Your task to perform on an android device: Open Google Chrome and open the bookmarks view Image 0: 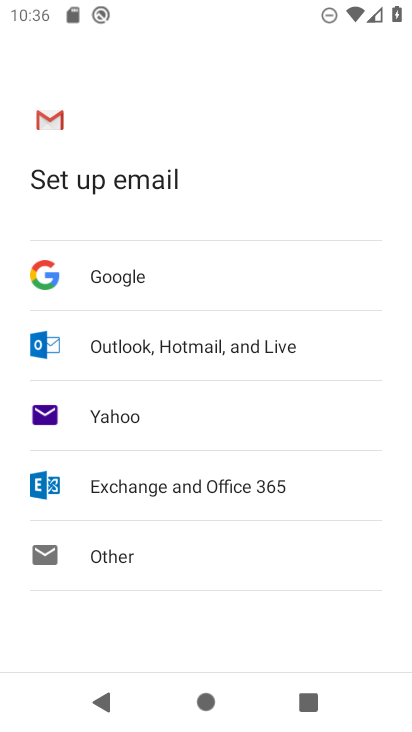
Step 0: press home button
Your task to perform on an android device: Open Google Chrome and open the bookmarks view Image 1: 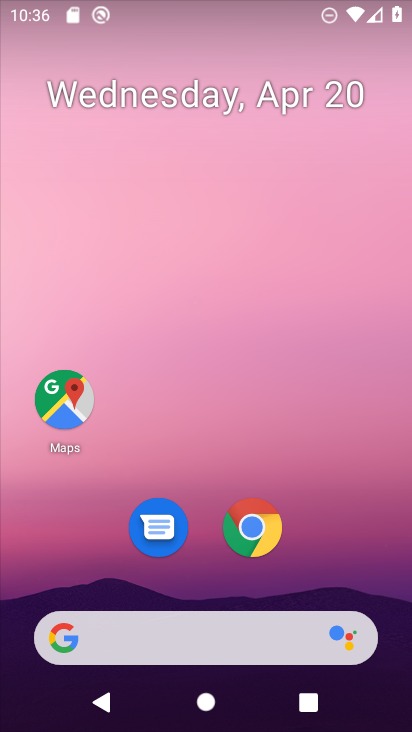
Step 1: click (257, 519)
Your task to perform on an android device: Open Google Chrome and open the bookmarks view Image 2: 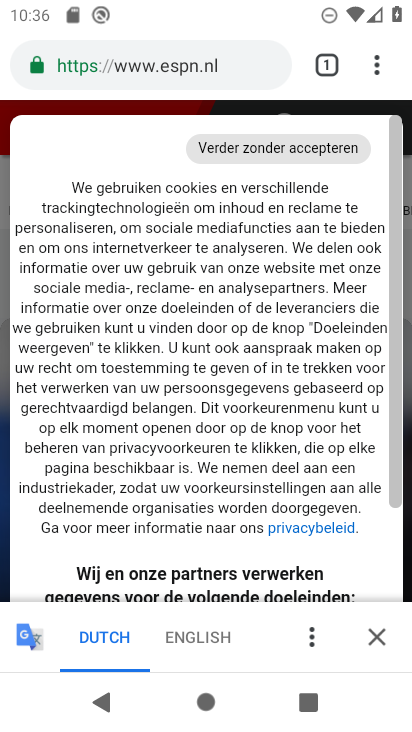
Step 2: click (378, 60)
Your task to perform on an android device: Open Google Chrome and open the bookmarks view Image 3: 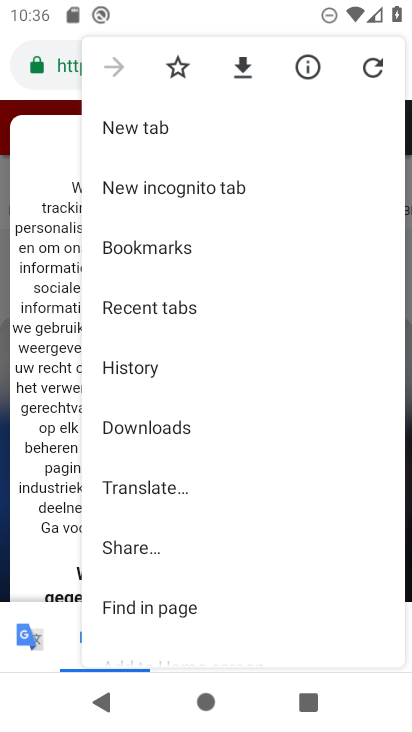
Step 3: click (158, 229)
Your task to perform on an android device: Open Google Chrome and open the bookmarks view Image 4: 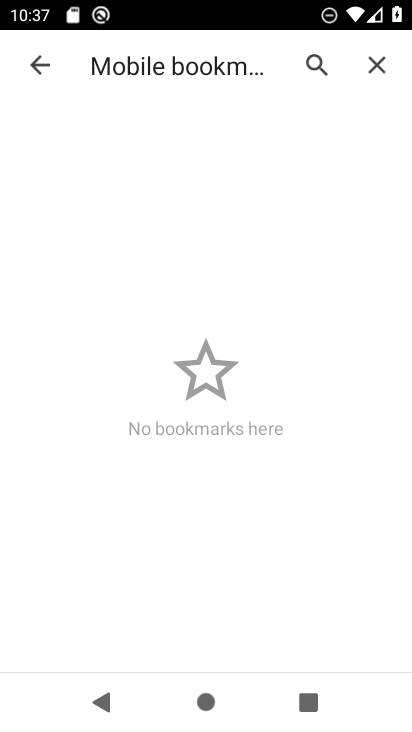
Step 4: task complete